Your task to perform on an android device: toggle translation in the chrome app Image 0: 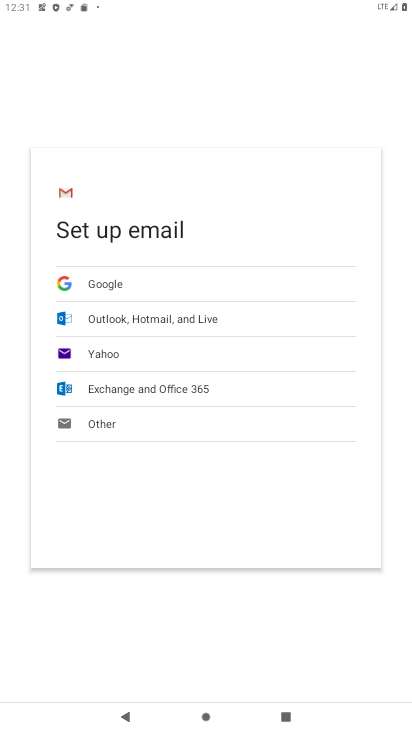
Step 0: press home button
Your task to perform on an android device: toggle translation in the chrome app Image 1: 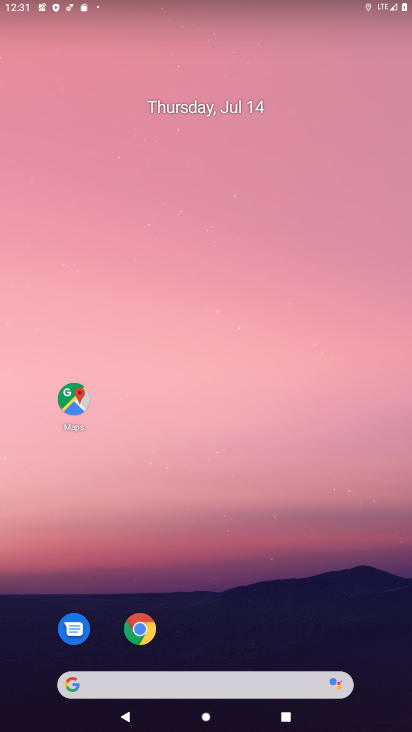
Step 1: drag from (342, 582) to (258, 83)
Your task to perform on an android device: toggle translation in the chrome app Image 2: 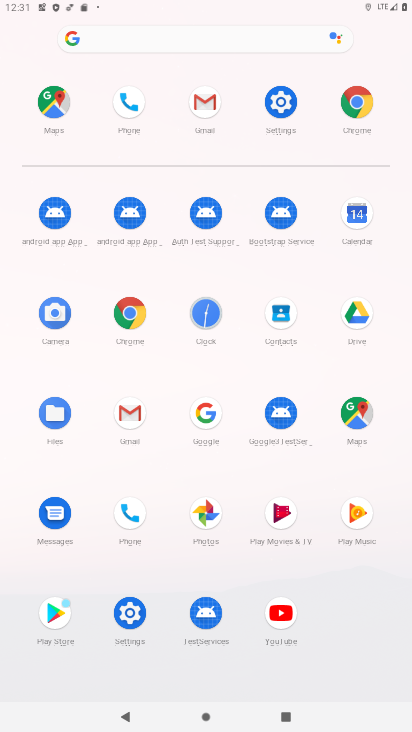
Step 2: click (360, 101)
Your task to perform on an android device: toggle translation in the chrome app Image 3: 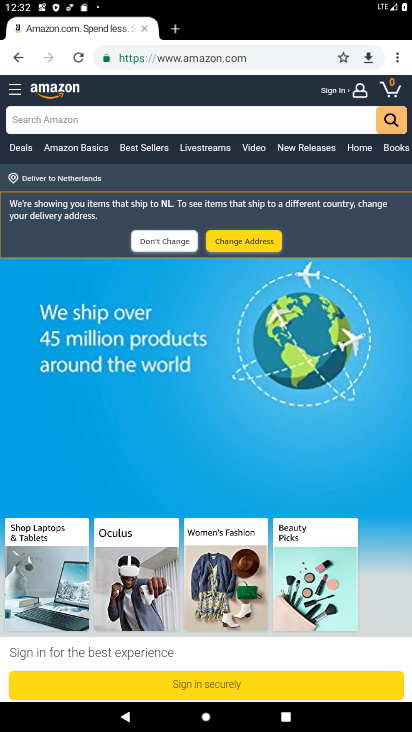
Step 3: drag from (401, 58) to (303, 387)
Your task to perform on an android device: toggle translation in the chrome app Image 4: 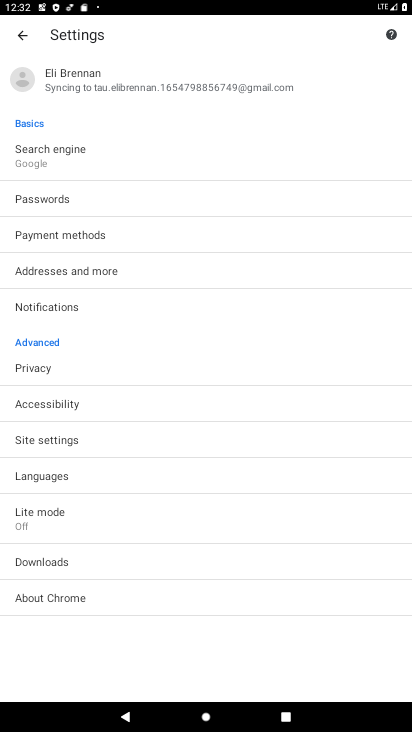
Step 4: click (59, 480)
Your task to perform on an android device: toggle translation in the chrome app Image 5: 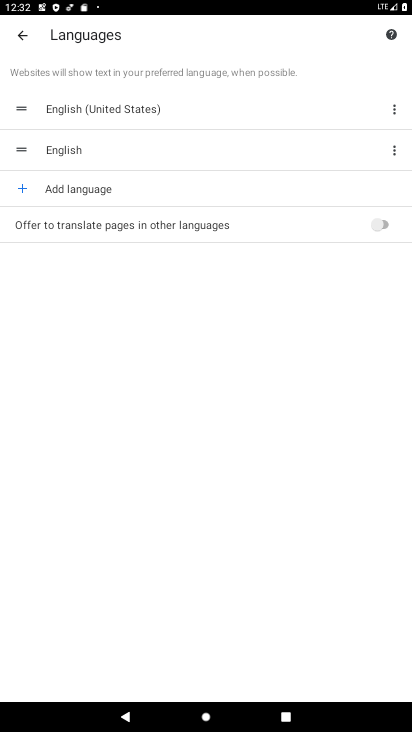
Step 5: click (387, 225)
Your task to perform on an android device: toggle translation in the chrome app Image 6: 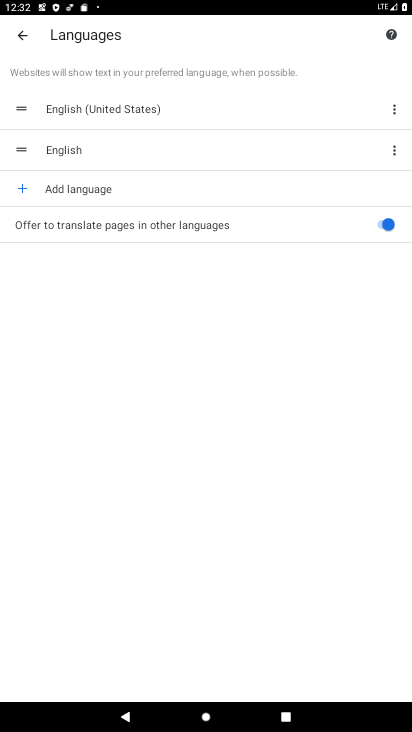
Step 6: task complete